Your task to perform on an android device: turn off translation in the chrome app Image 0: 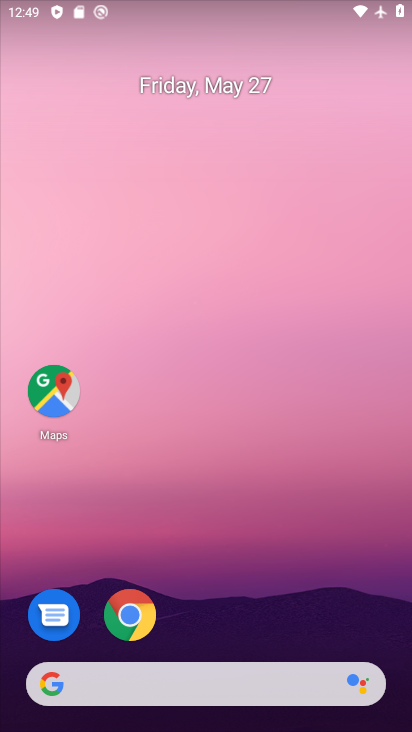
Step 0: press home button
Your task to perform on an android device: turn off translation in the chrome app Image 1: 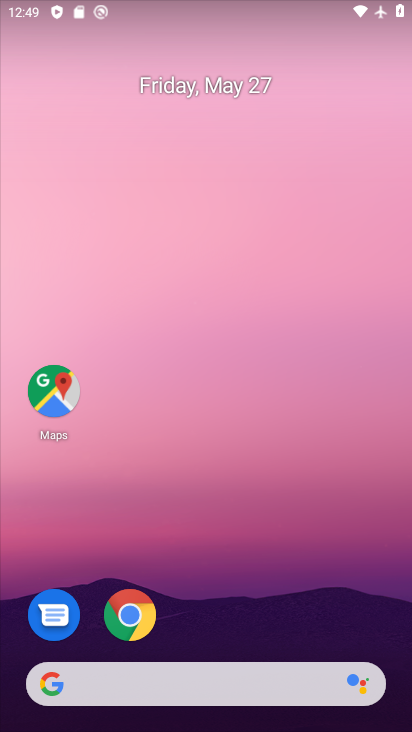
Step 1: press home button
Your task to perform on an android device: turn off translation in the chrome app Image 2: 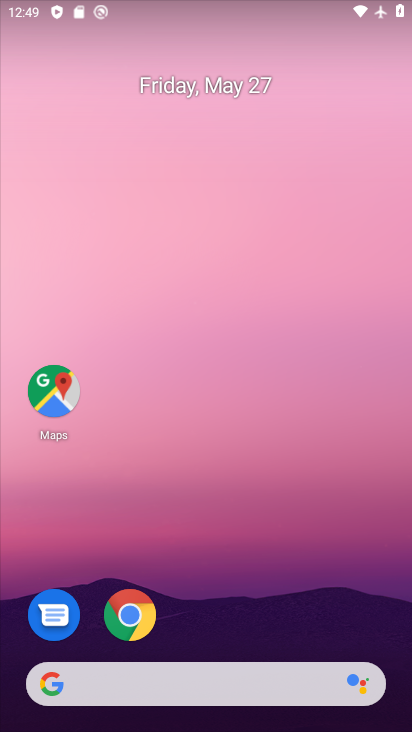
Step 2: click (128, 612)
Your task to perform on an android device: turn off translation in the chrome app Image 3: 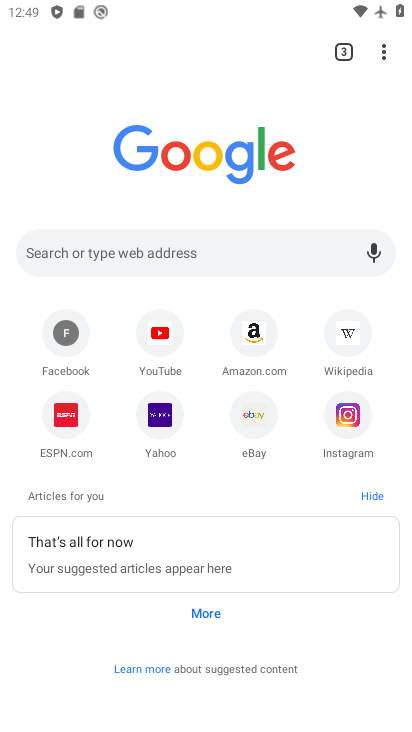
Step 3: click (383, 60)
Your task to perform on an android device: turn off translation in the chrome app Image 4: 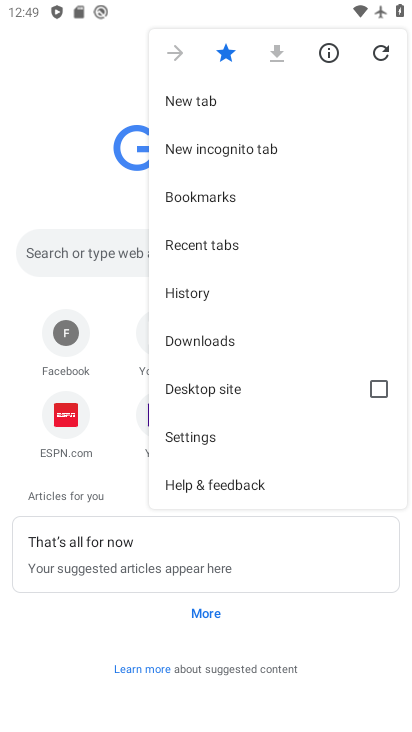
Step 4: click (199, 437)
Your task to perform on an android device: turn off translation in the chrome app Image 5: 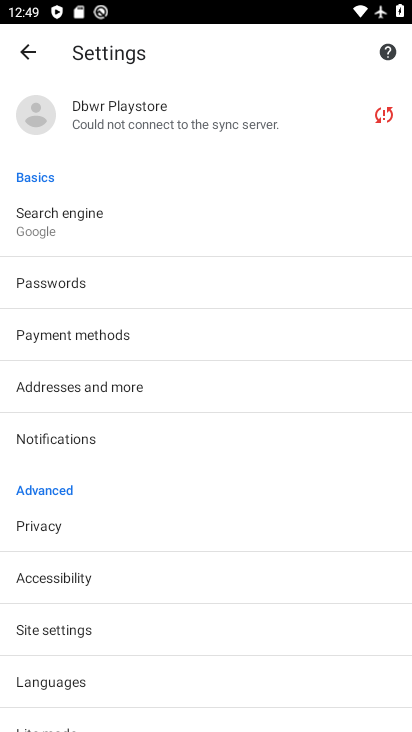
Step 5: click (54, 683)
Your task to perform on an android device: turn off translation in the chrome app Image 6: 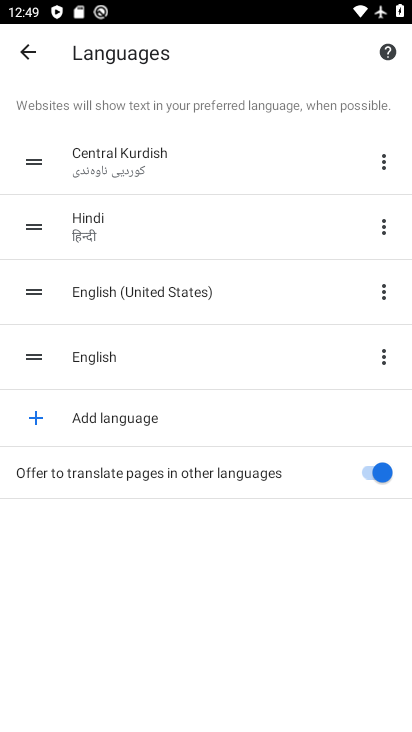
Step 6: click (386, 467)
Your task to perform on an android device: turn off translation in the chrome app Image 7: 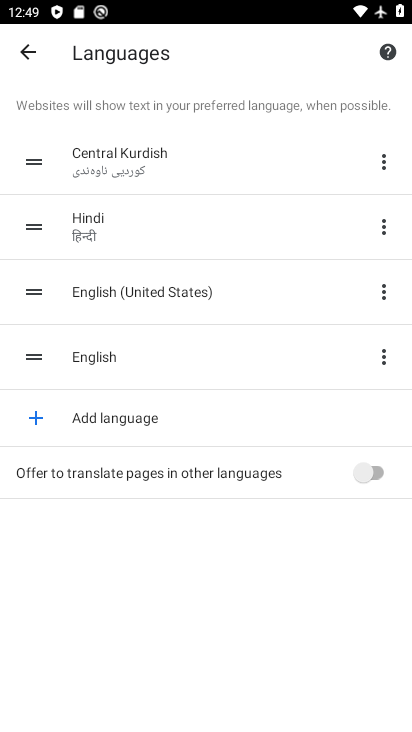
Step 7: task complete